Your task to perform on an android device: Open Google Image 0: 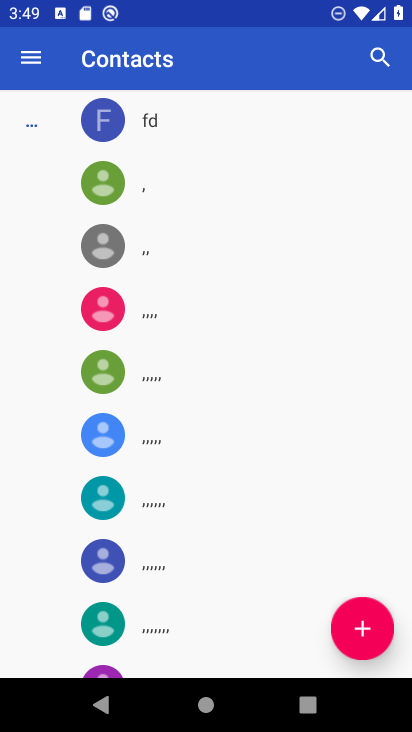
Step 0: press home button
Your task to perform on an android device: Open Google Image 1: 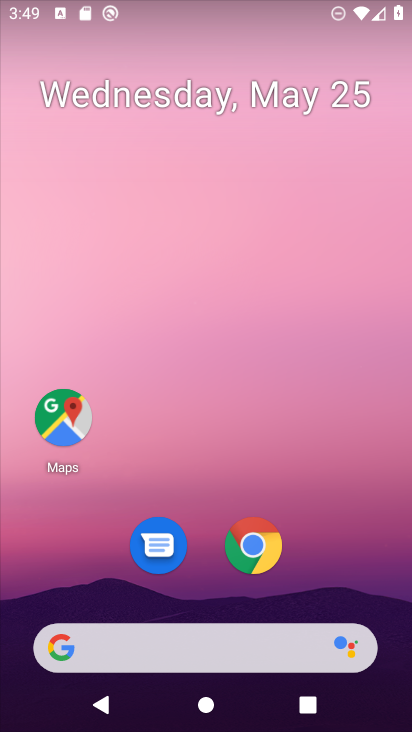
Step 1: click (168, 643)
Your task to perform on an android device: Open Google Image 2: 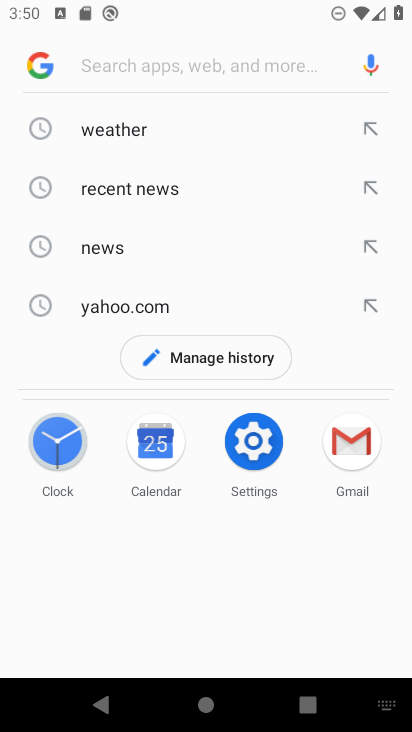
Step 2: type "google.com"
Your task to perform on an android device: Open Google Image 3: 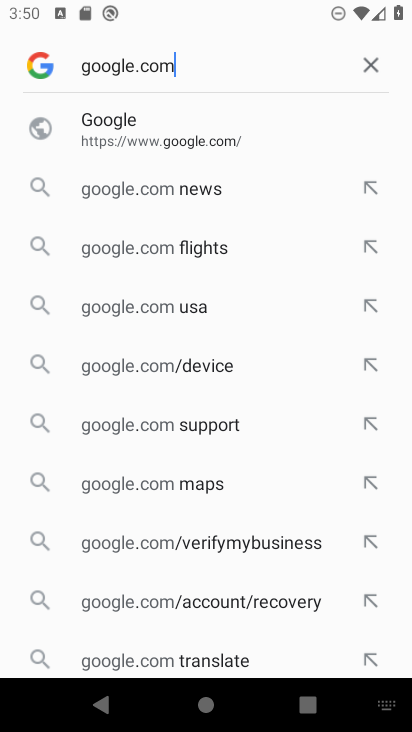
Step 3: click (195, 144)
Your task to perform on an android device: Open Google Image 4: 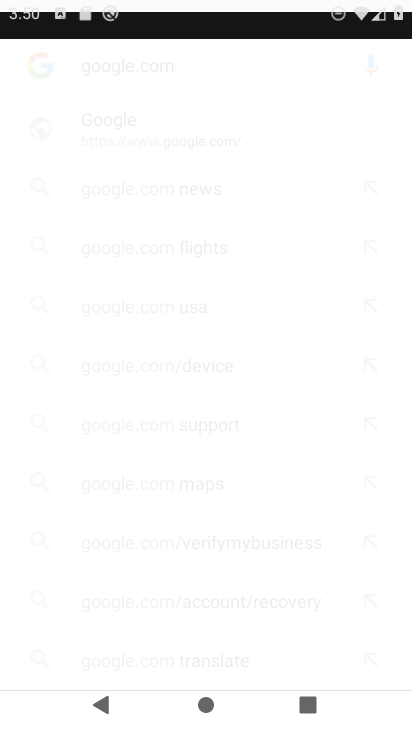
Step 4: task complete